Your task to perform on an android device: What's the weather going to be tomorrow? Image 0: 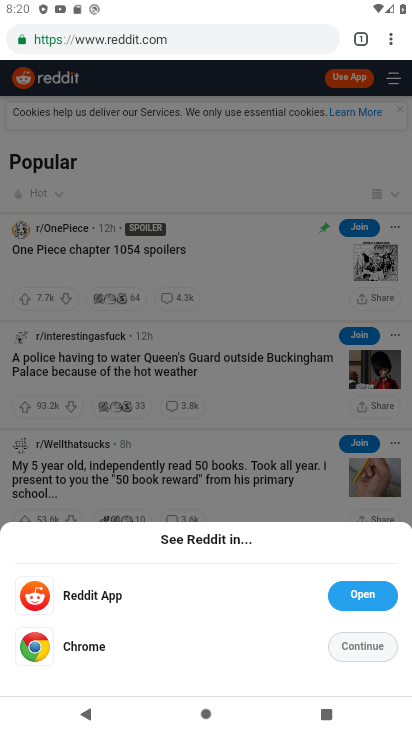
Step 0: press home button
Your task to perform on an android device: What's the weather going to be tomorrow? Image 1: 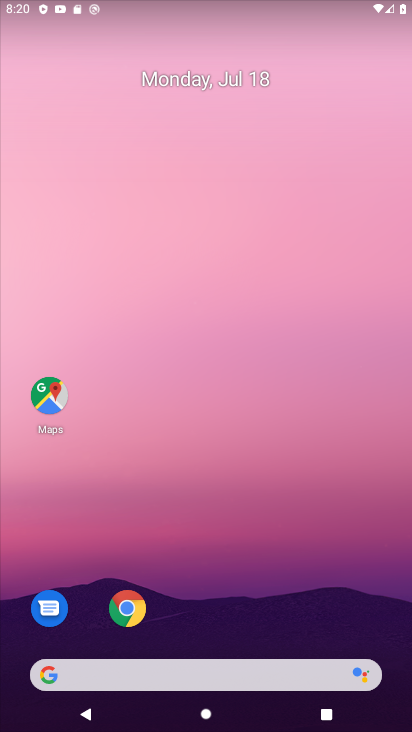
Step 1: click (178, 669)
Your task to perform on an android device: What's the weather going to be tomorrow? Image 2: 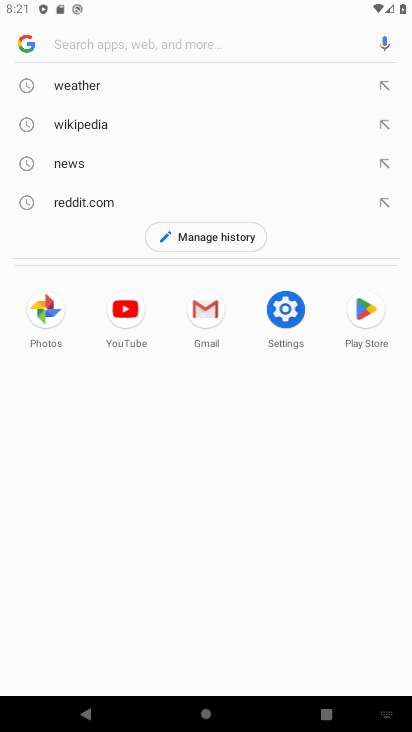
Step 2: type "what's the weather going to be tomorrow?"
Your task to perform on an android device: What's the weather going to be tomorrow? Image 3: 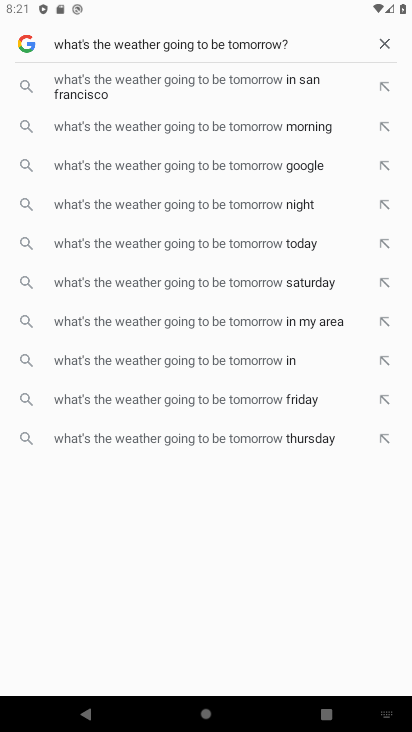
Step 3: click (263, 168)
Your task to perform on an android device: What's the weather going to be tomorrow? Image 4: 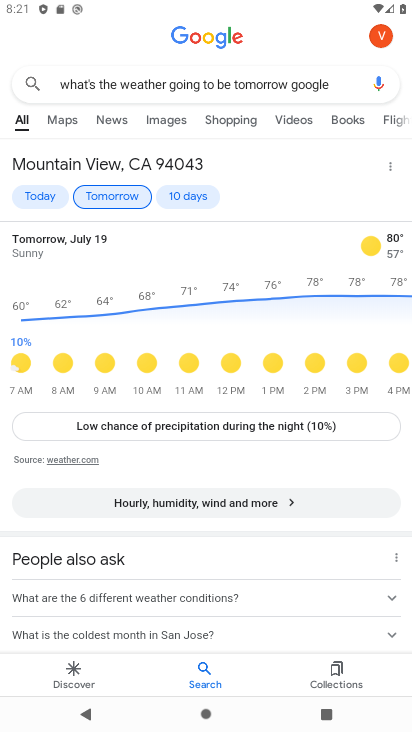
Step 4: task complete